Your task to perform on an android device: Open Amazon Image 0: 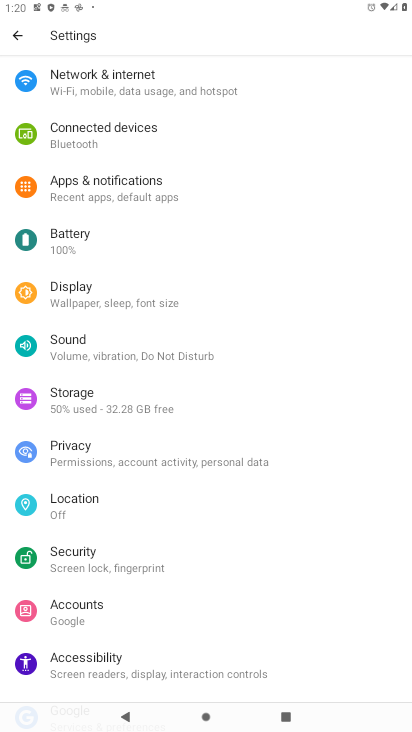
Step 0: press home button
Your task to perform on an android device: Open Amazon Image 1: 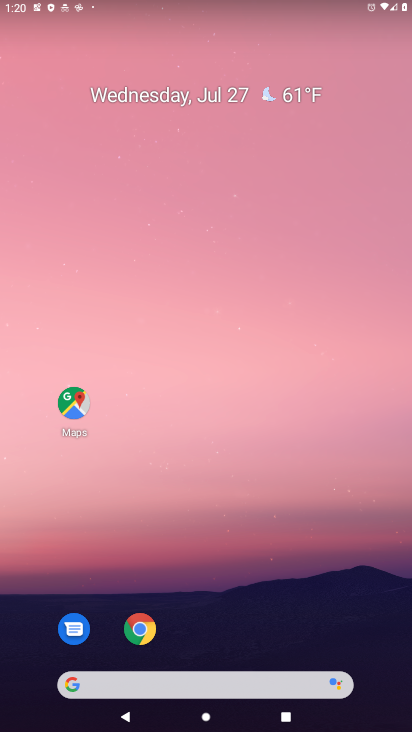
Step 1: drag from (284, 650) to (167, 4)
Your task to perform on an android device: Open Amazon Image 2: 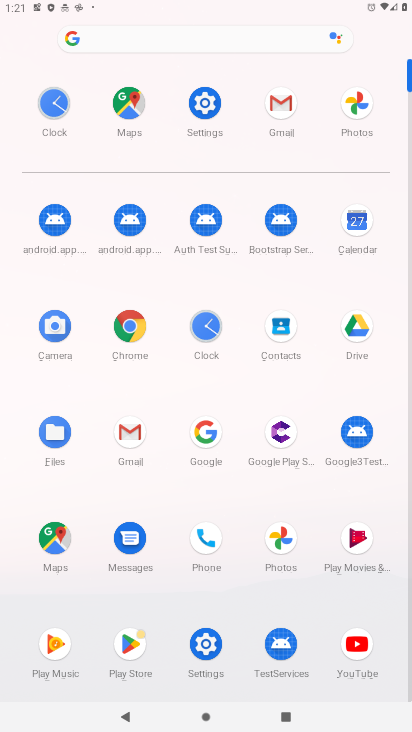
Step 2: click (150, 322)
Your task to perform on an android device: Open Amazon Image 3: 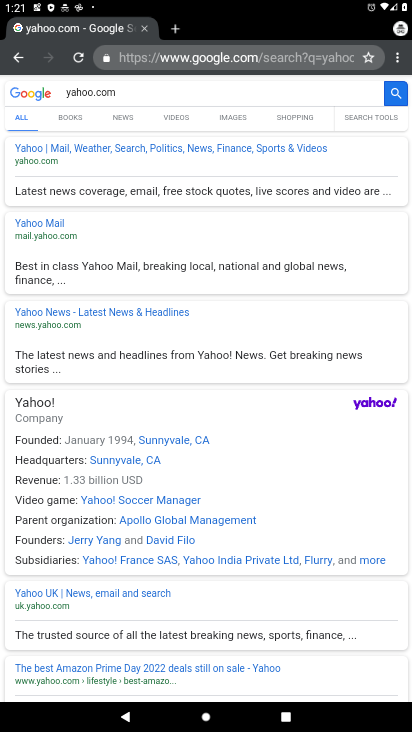
Step 3: click (170, 33)
Your task to perform on an android device: Open Amazon Image 4: 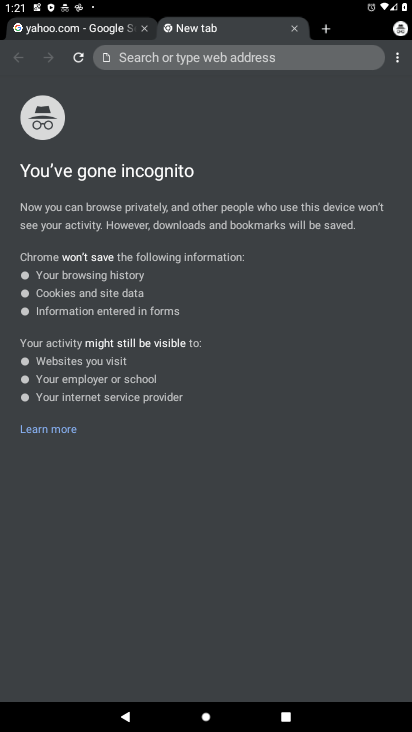
Step 4: type "amazone"
Your task to perform on an android device: Open Amazon Image 5: 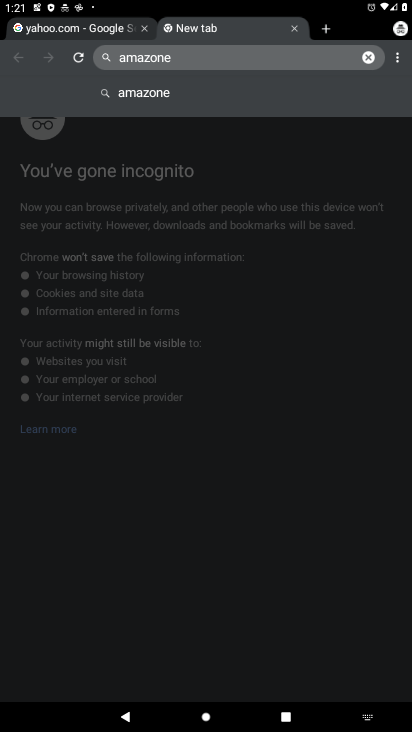
Step 5: click (188, 84)
Your task to perform on an android device: Open Amazon Image 6: 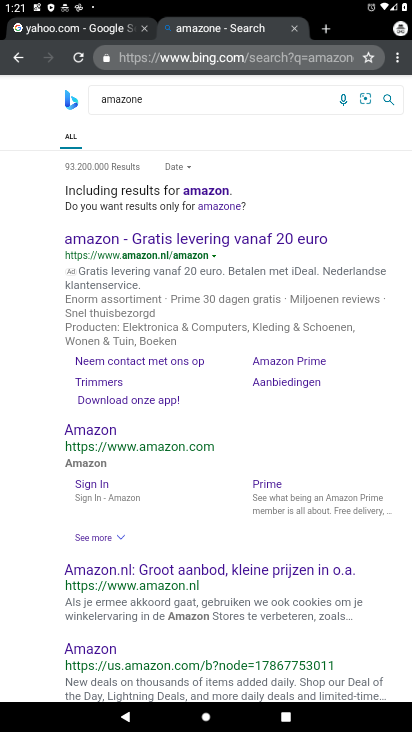
Step 6: click (120, 230)
Your task to perform on an android device: Open Amazon Image 7: 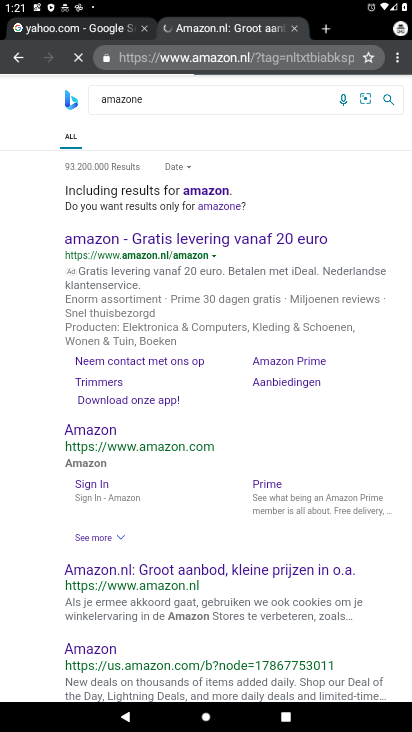
Step 7: task complete